Your task to perform on an android device: Go to Reddit.com Image 0: 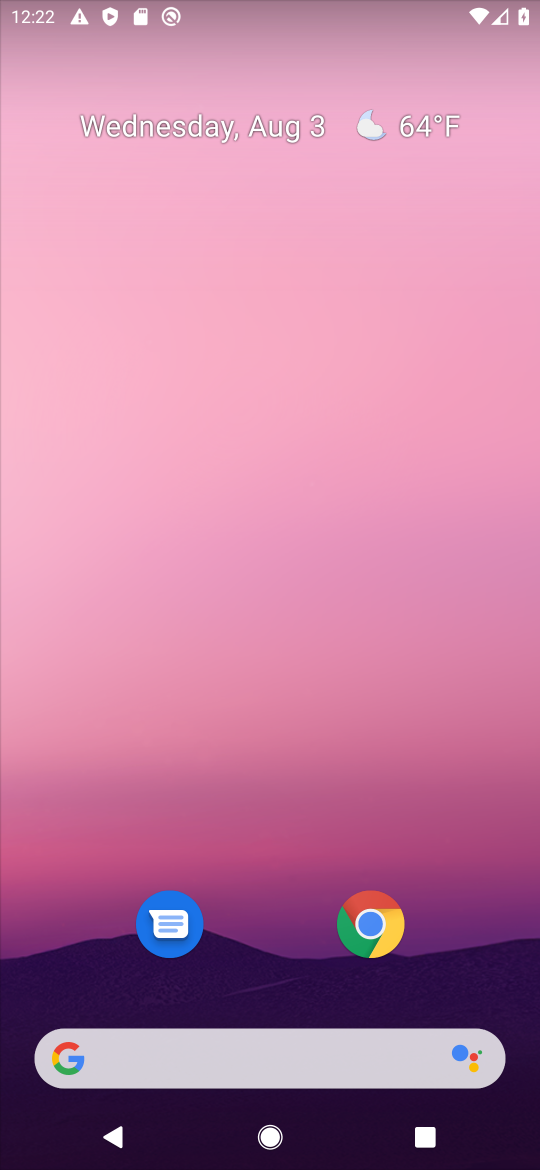
Step 0: click (372, 930)
Your task to perform on an android device: Go to Reddit.com Image 1: 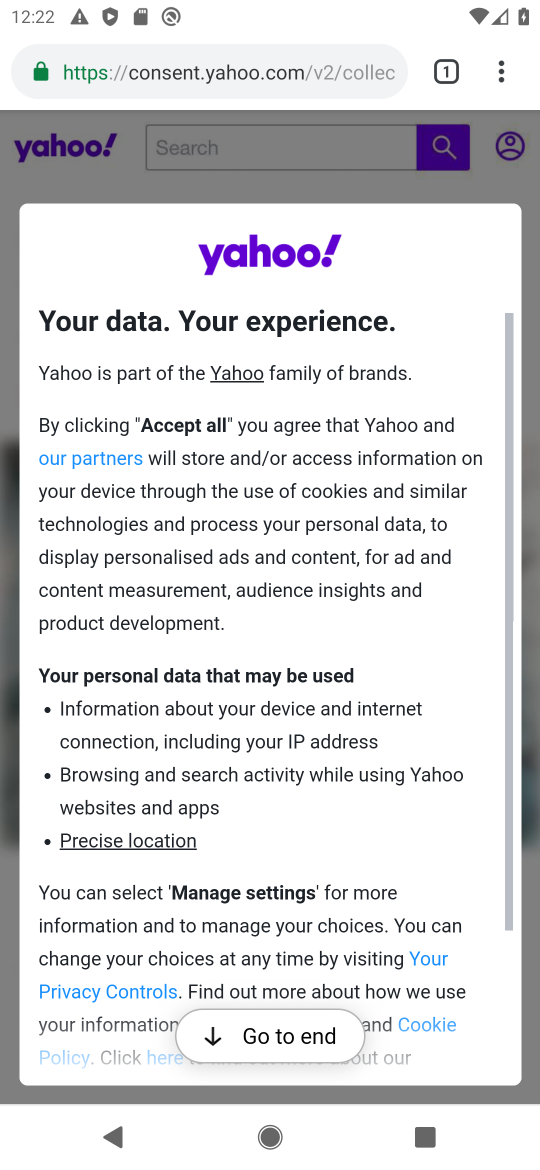
Step 1: click (451, 66)
Your task to perform on an android device: Go to Reddit.com Image 2: 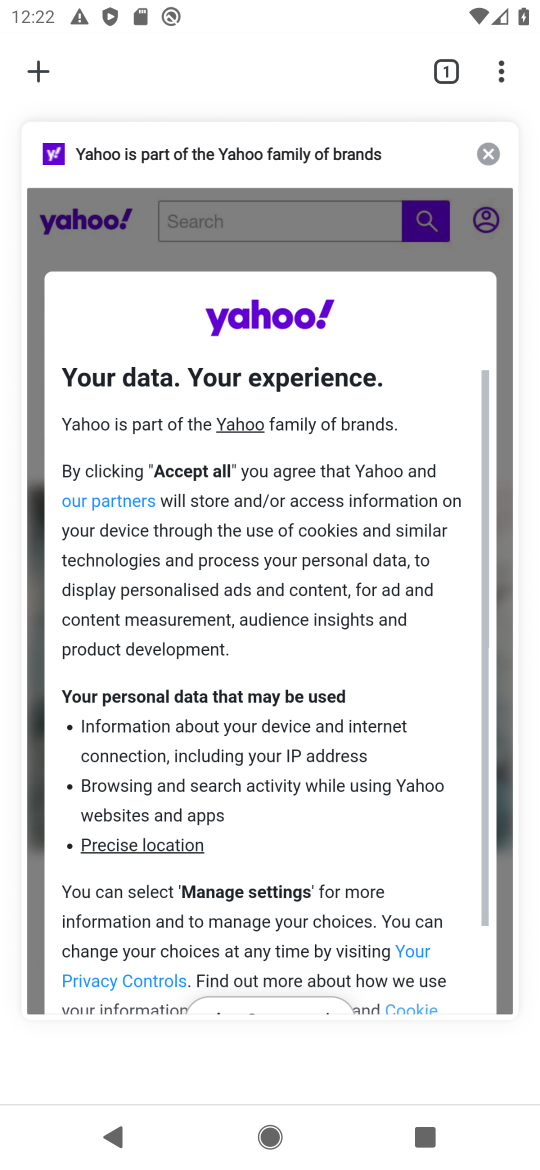
Step 2: click (21, 77)
Your task to perform on an android device: Go to Reddit.com Image 3: 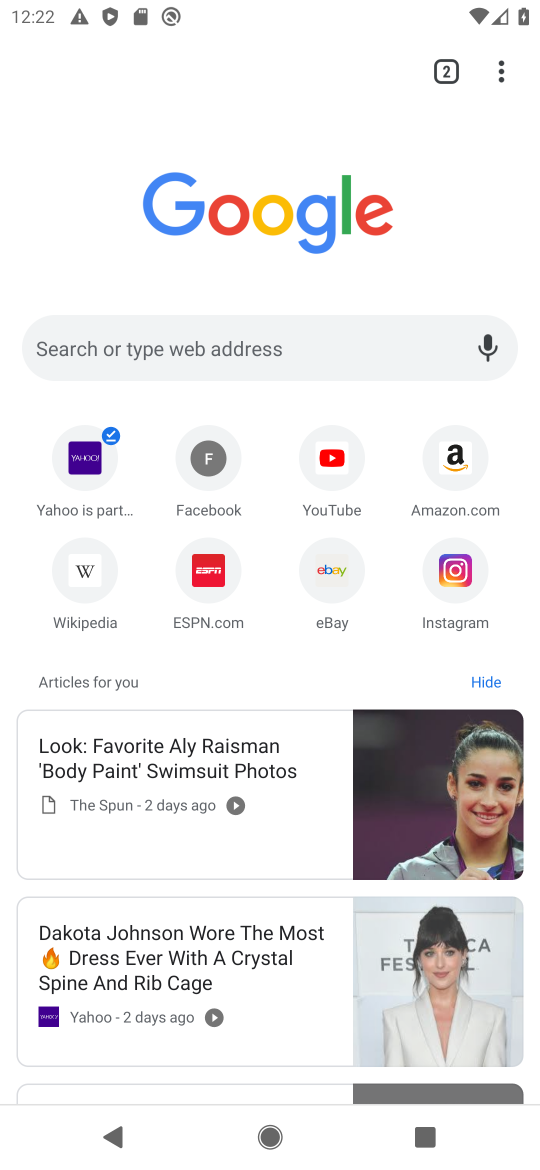
Step 3: click (205, 364)
Your task to perform on an android device: Go to Reddit.com Image 4: 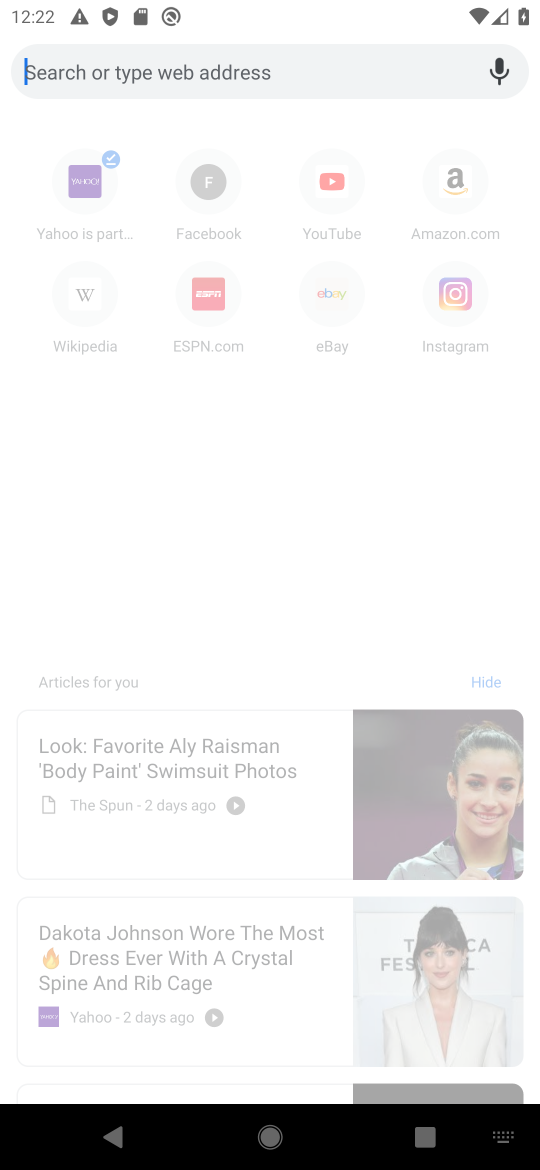
Step 4: type "reddit.com"
Your task to perform on an android device: Go to Reddit.com Image 5: 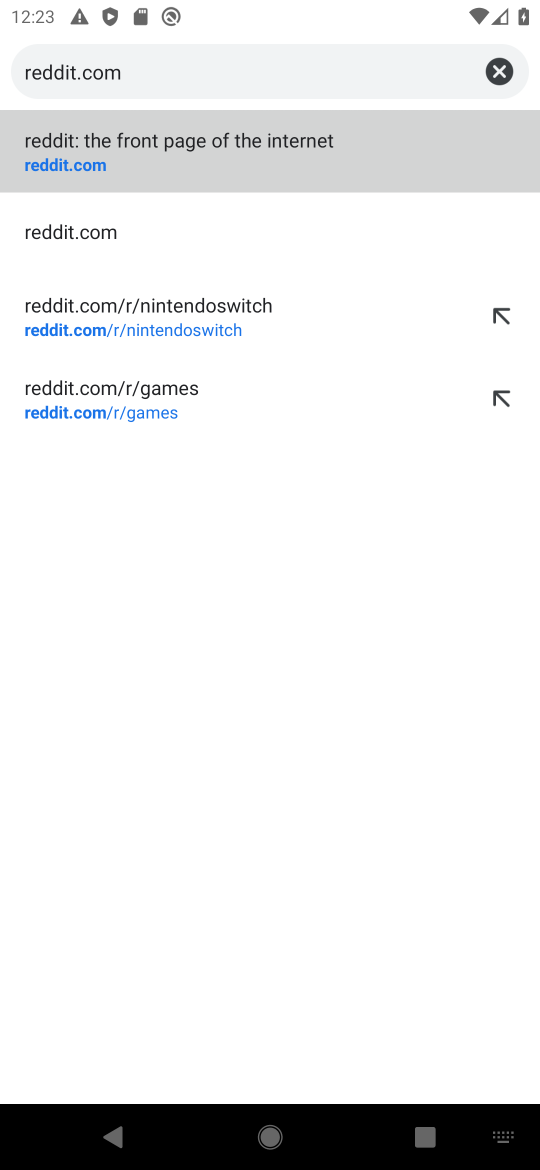
Step 5: click (168, 129)
Your task to perform on an android device: Go to Reddit.com Image 6: 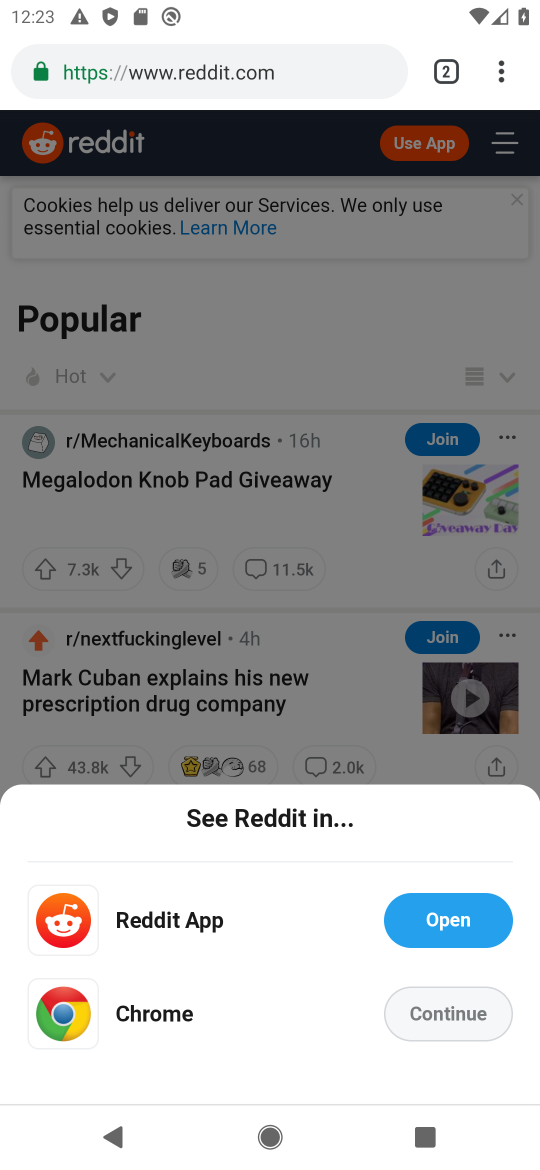
Step 6: task complete